Your task to perform on an android device: turn pop-ups on in chrome Image 0: 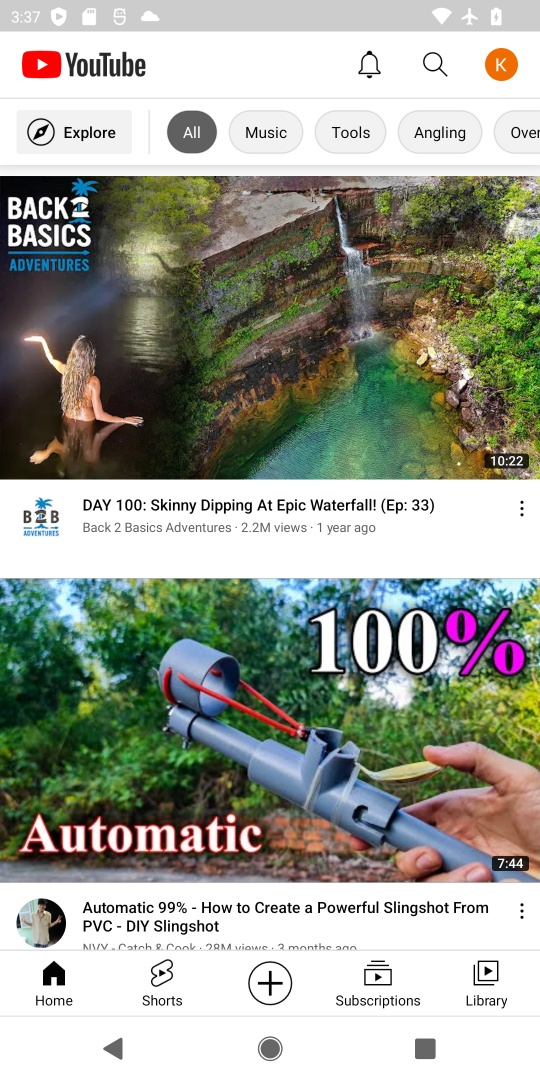
Step 0: press home button
Your task to perform on an android device: turn pop-ups on in chrome Image 1: 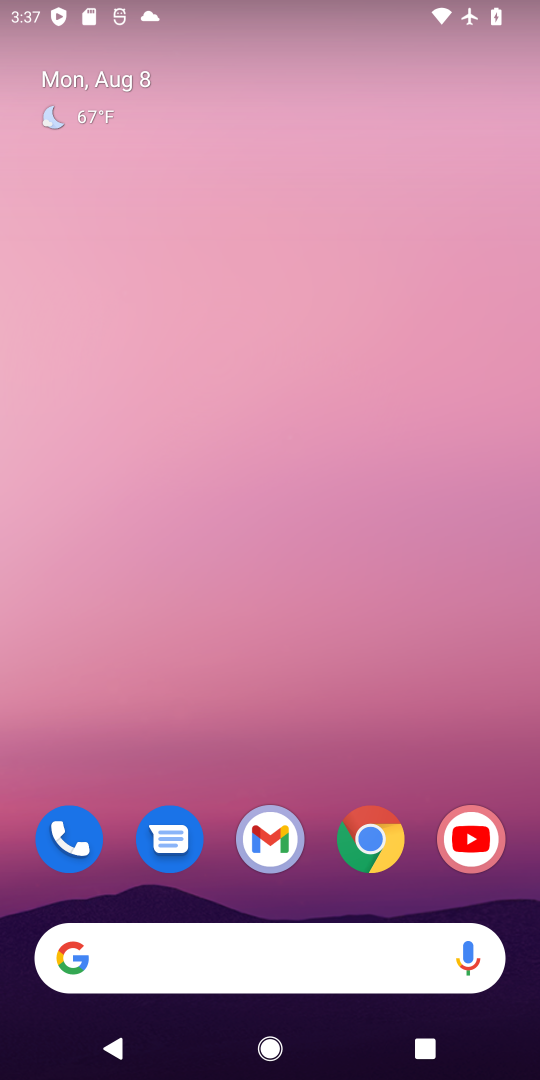
Step 1: drag from (485, 704) to (468, 213)
Your task to perform on an android device: turn pop-ups on in chrome Image 2: 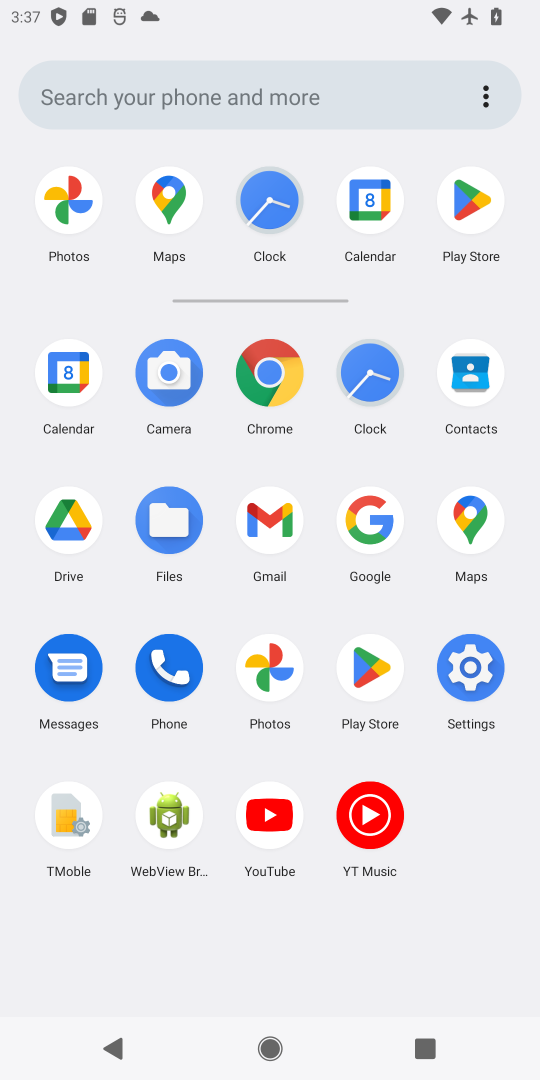
Step 2: click (275, 377)
Your task to perform on an android device: turn pop-ups on in chrome Image 3: 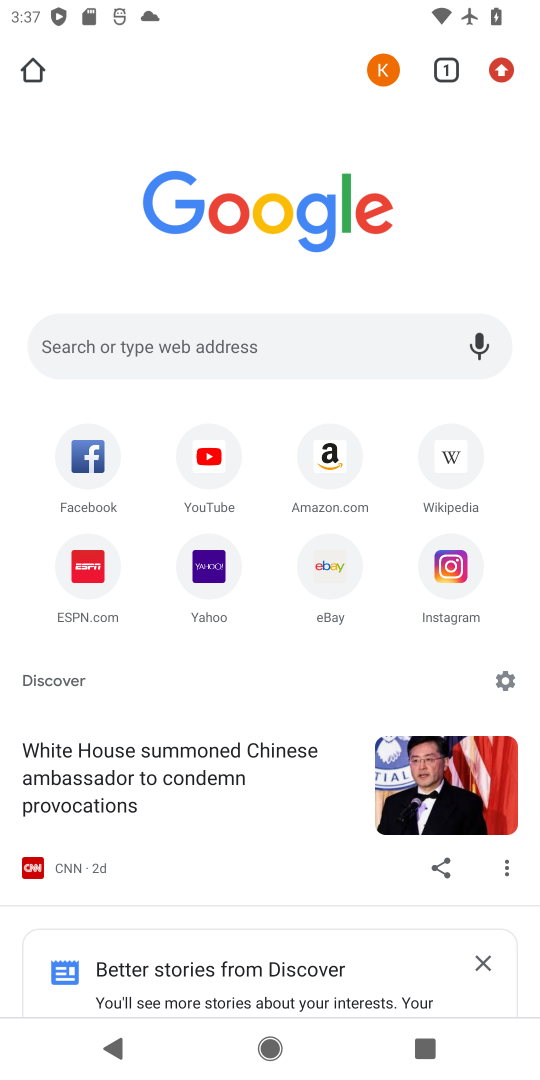
Step 3: click (502, 70)
Your task to perform on an android device: turn pop-ups on in chrome Image 4: 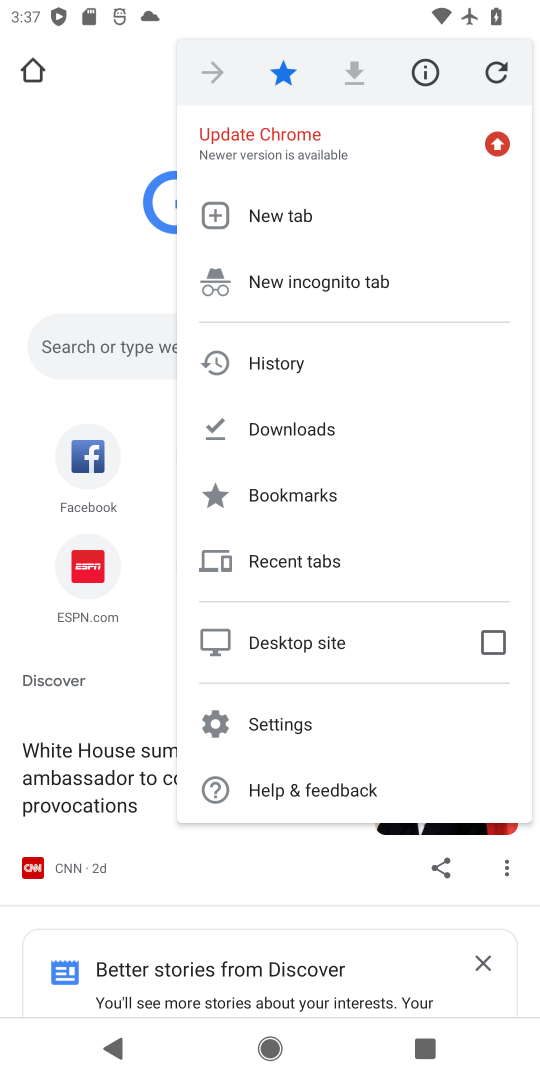
Step 4: click (411, 728)
Your task to perform on an android device: turn pop-ups on in chrome Image 5: 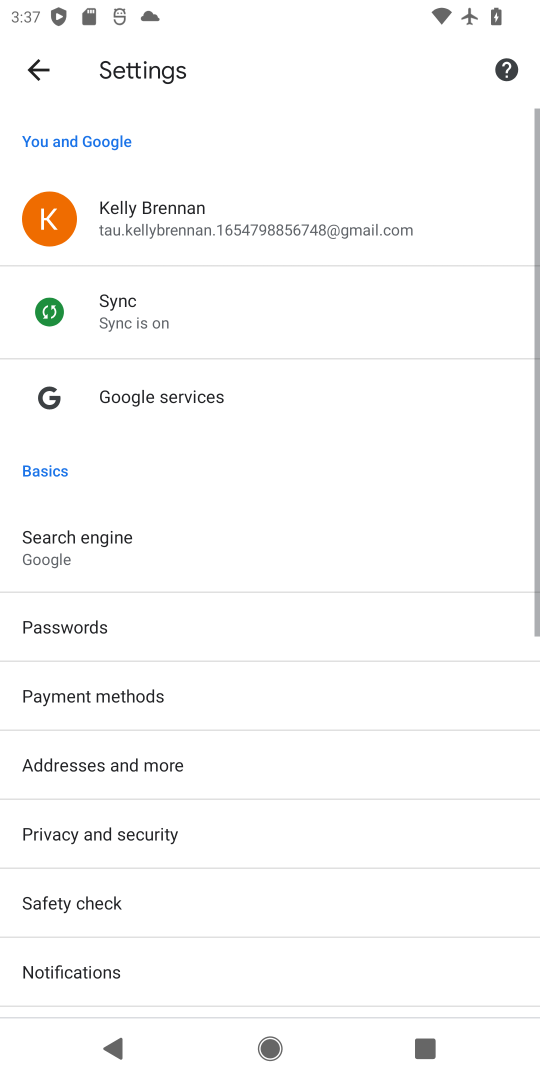
Step 5: click (408, 611)
Your task to perform on an android device: turn pop-ups on in chrome Image 6: 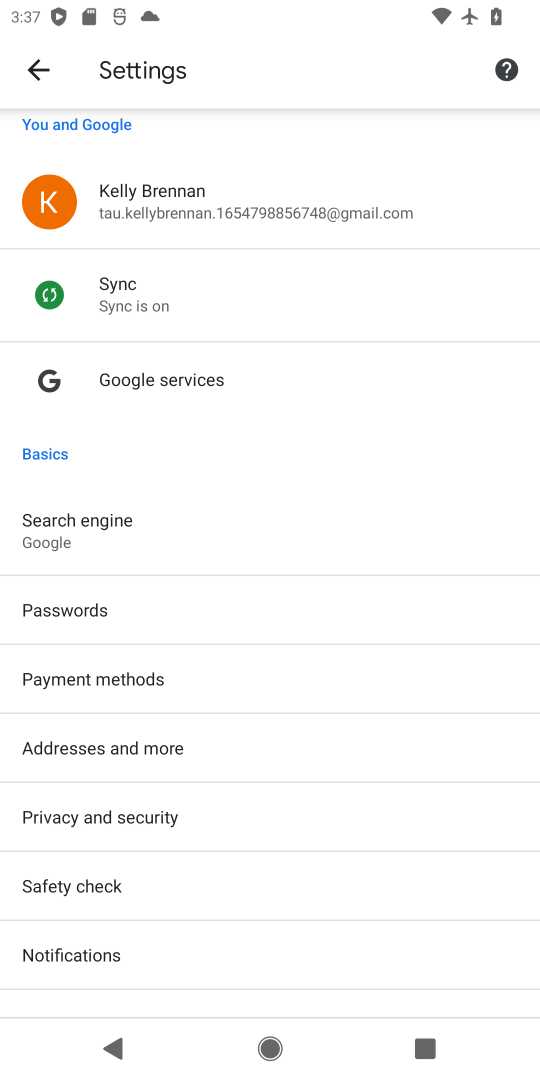
Step 6: drag from (376, 777) to (377, 638)
Your task to perform on an android device: turn pop-ups on in chrome Image 7: 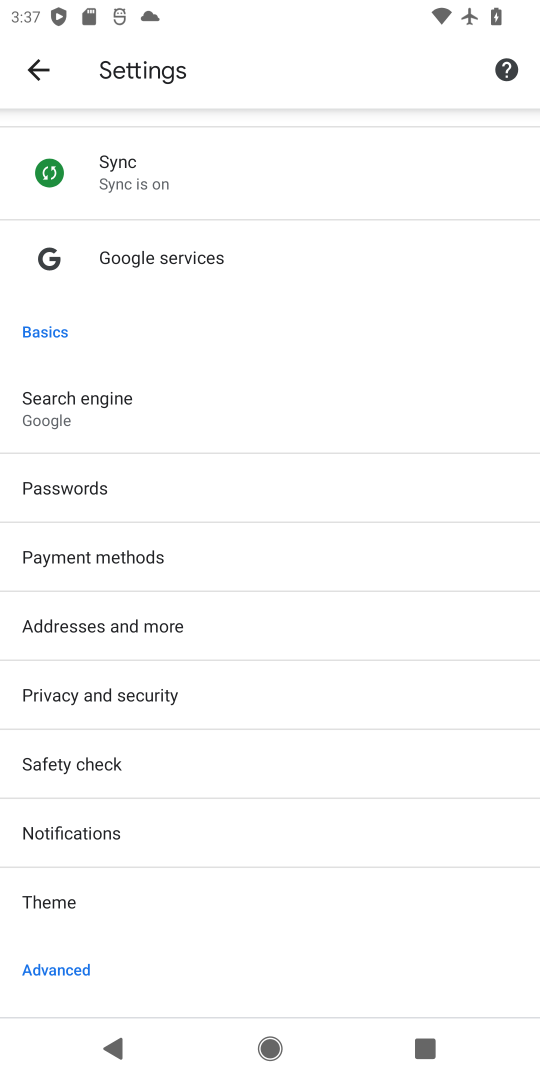
Step 7: drag from (364, 807) to (364, 654)
Your task to perform on an android device: turn pop-ups on in chrome Image 8: 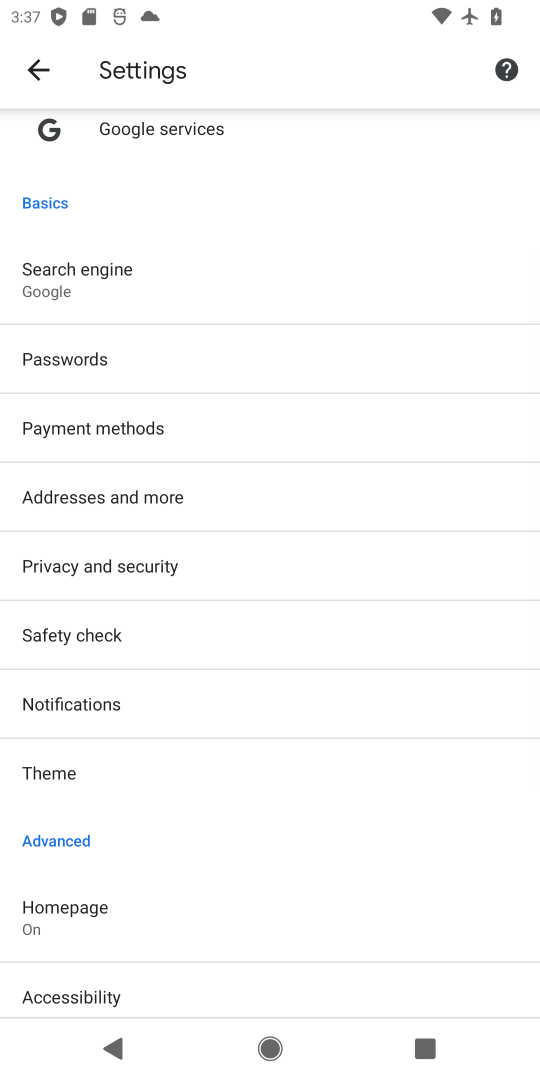
Step 8: drag from (378, 815) to (382, 671)
Your task to perform on an android device: turn pop-ups on in chrome Image 9: 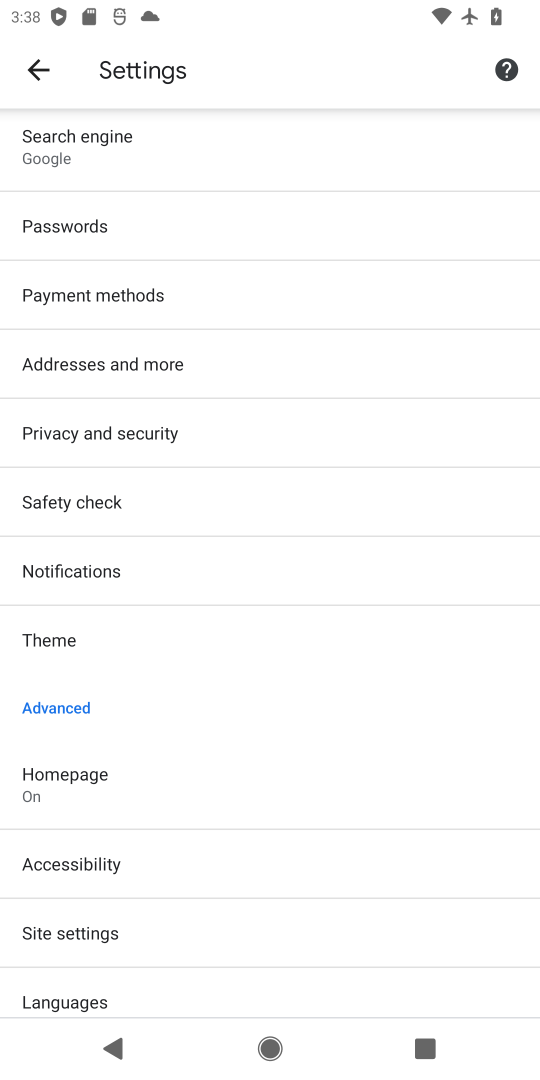
Step 9: drag from (363, 857) to (355, 657)
Your task to perform on an android device: turn pop-ups on in chrome Image 10: 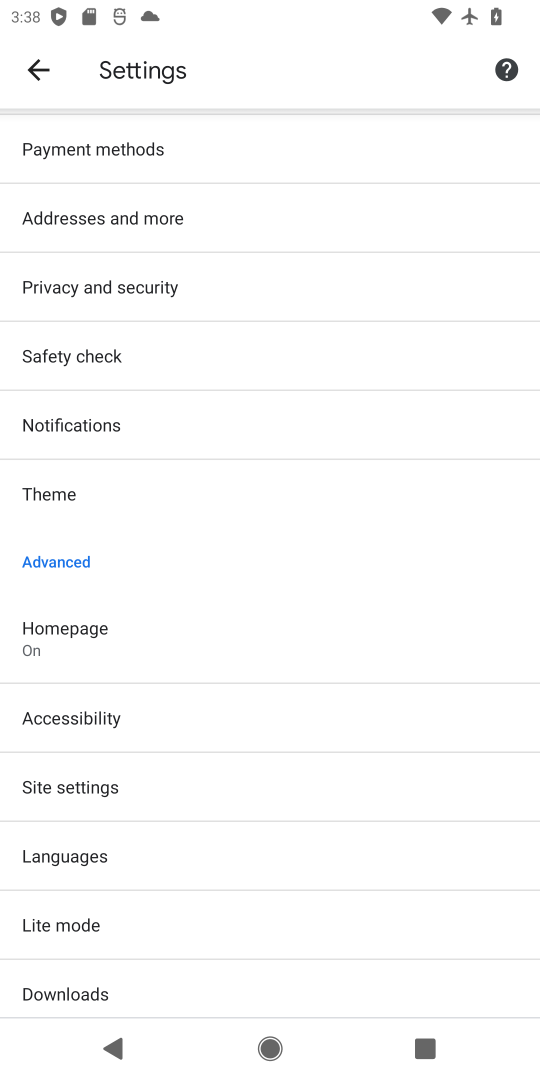
Step 10: click (340, 788)
Your task to perform on an android device: turn pop-ups on in chrome Image 11: 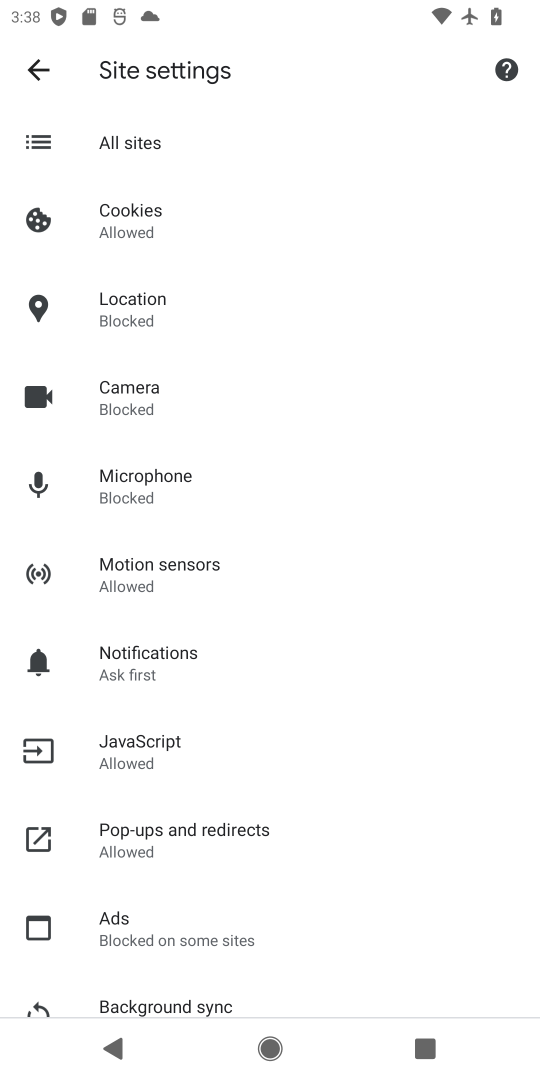
Step 11: drag from (368, 813) to (387, 666)
Your task to perform on an android device: turn pop-ups on in chrome Image 12: 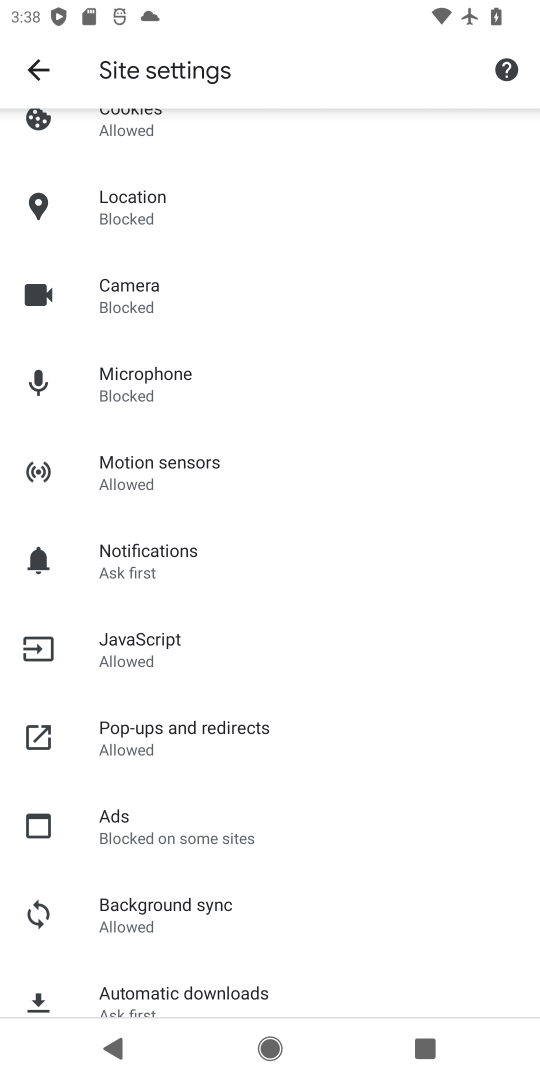
Step 12: drag from (385, 787) to (387, 695)
Your task to perform on an android device: turn pop-ups on in chrome Image 13: 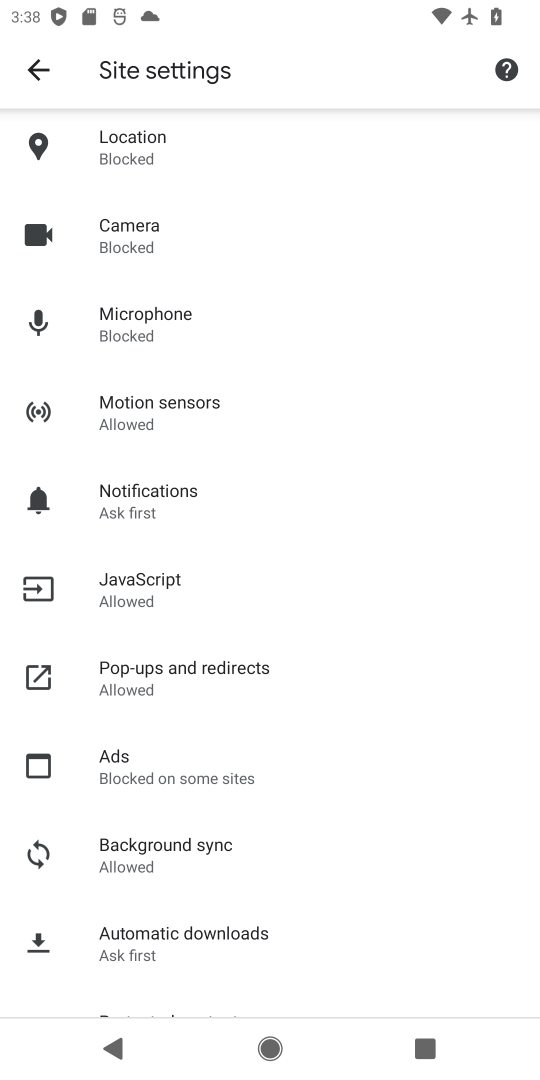
Step 13: click (356, 679)
Your task to perform on an android device: turn pop-ups on in chrome Image 14: 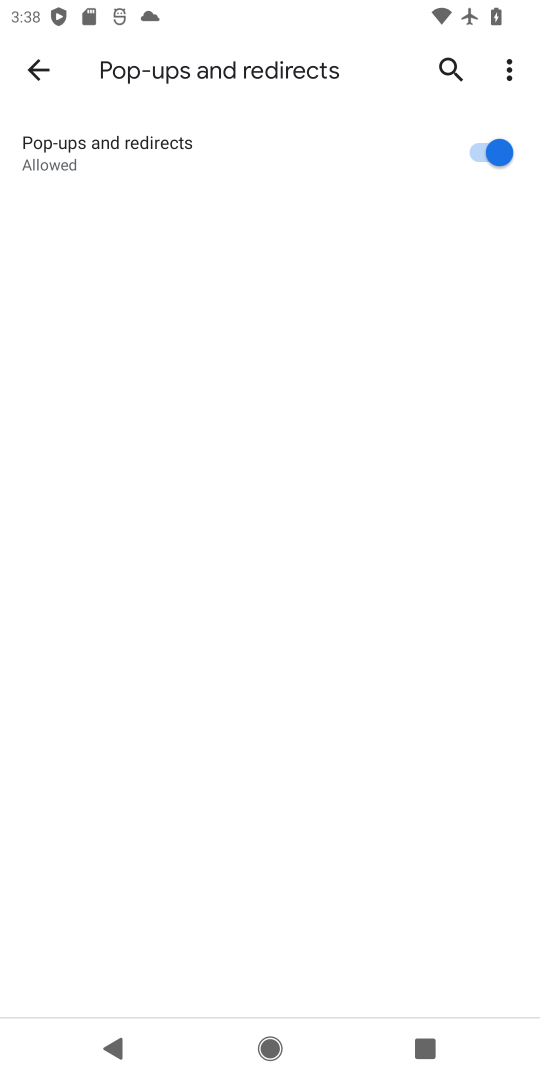
Step 14: task complete